Your task to perform on an android device: What's on my calendar tomorrow? Image 0: 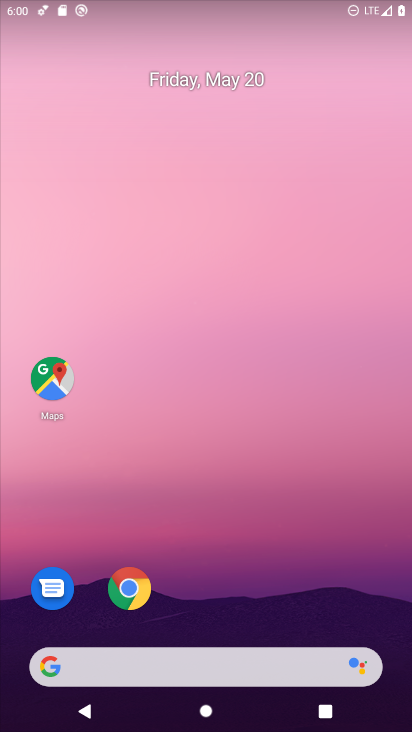
Step 0: drag from (216, 575) to (285, 15)
Your task to perform on an android device: What's on my calendar tomorrow? Image 1: 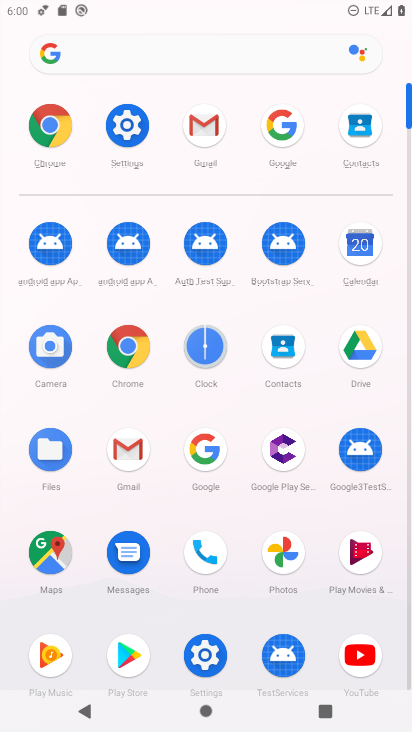
Step 1: click (366, 260)
Your task to perform on an android device: What's on my calendar tomorrow? Image 2: 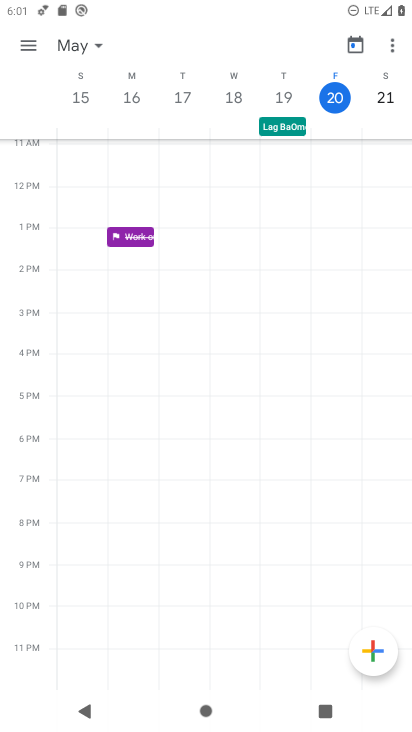
Step 2: click (20, 47)
Your task to perform on an android device: What's on my calendar tomorrow? Image 3: 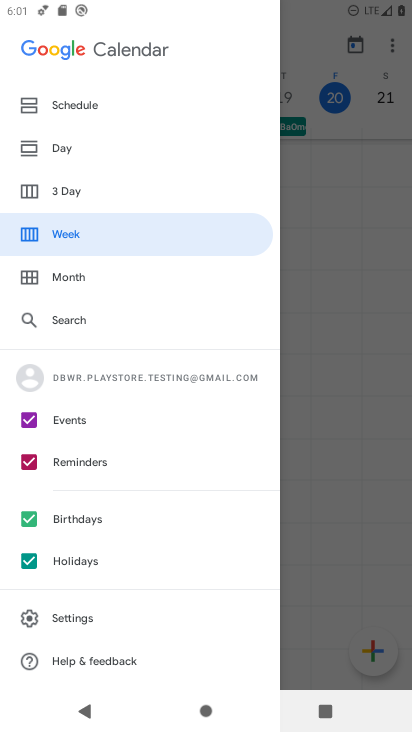
Step 3: click (67, 110)
Your task to perform on an android device: What's on my calendar tomorrow? Image 4: 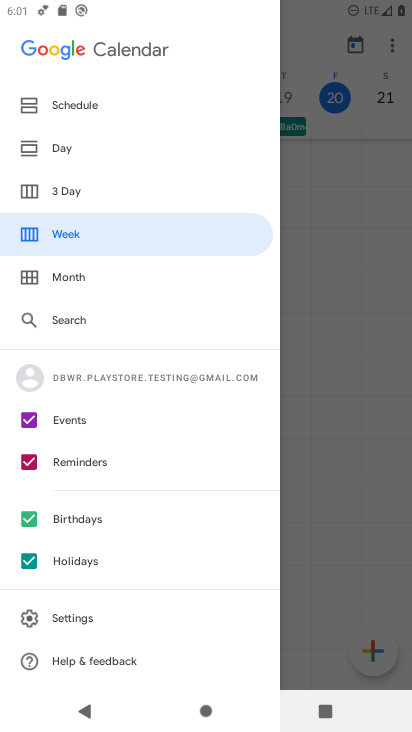
Step 4: click (81, 106)
Your task to perform on an android device: What's on my calendar tomorrow? Image 5: 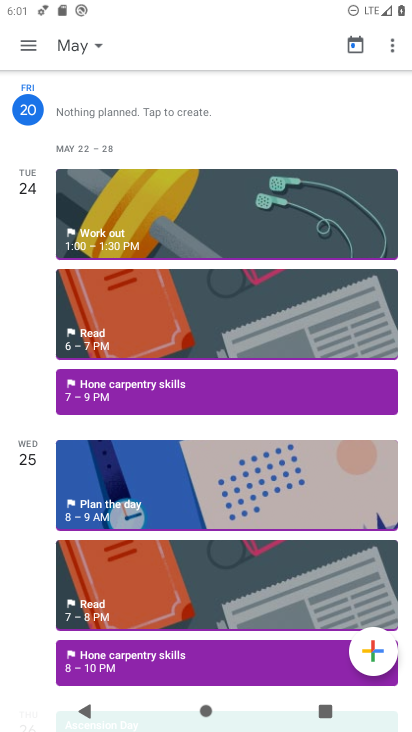
Step 5: task complete